Your task to perform on an android device: change notification settings in the gmail app Image 0: 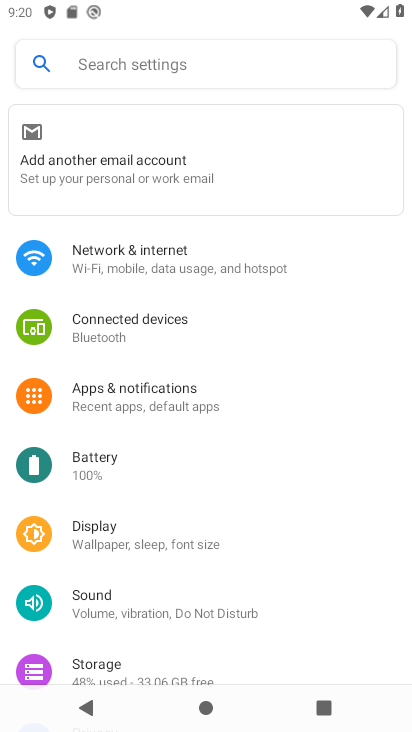
Step 0: press home button
Your task to perform on an android device: change notification settings in the gmail app Image 1: 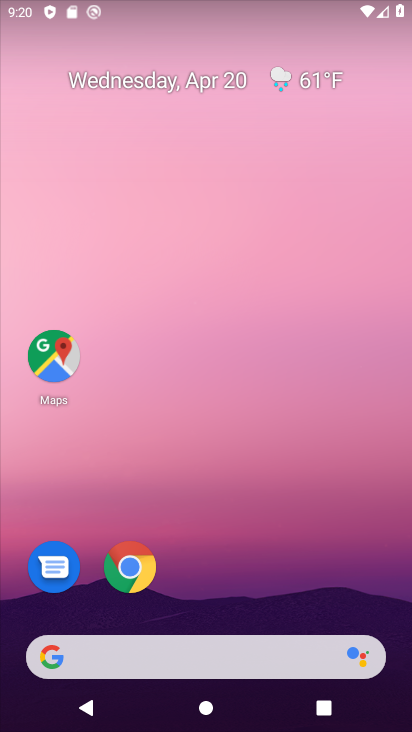
Step 1: drag from (211, 597) to (219, 159)
Your task to perform on an android device: change notification settings in the gmail app Image 2: 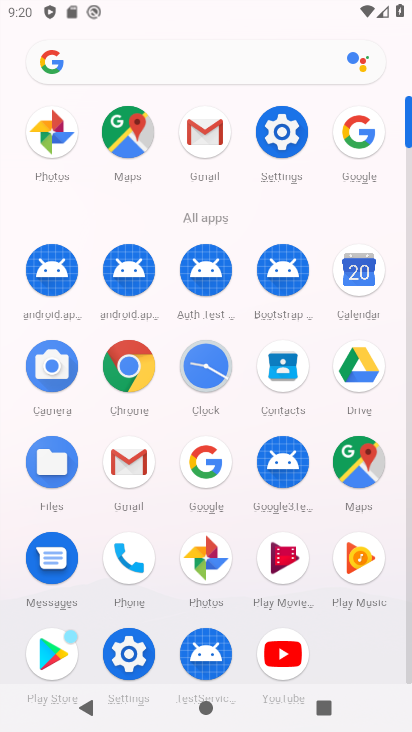
Step 2: click (207, 123)
Your task to perform on an android device: change notification settings in the gmail app Image 3: 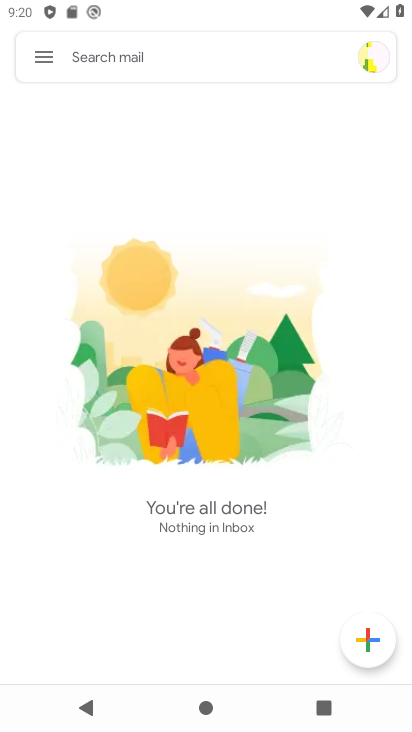
Step 3: click (45, 47)
Your task to perform on an android device: change notification settings in the gmail app Image 4: 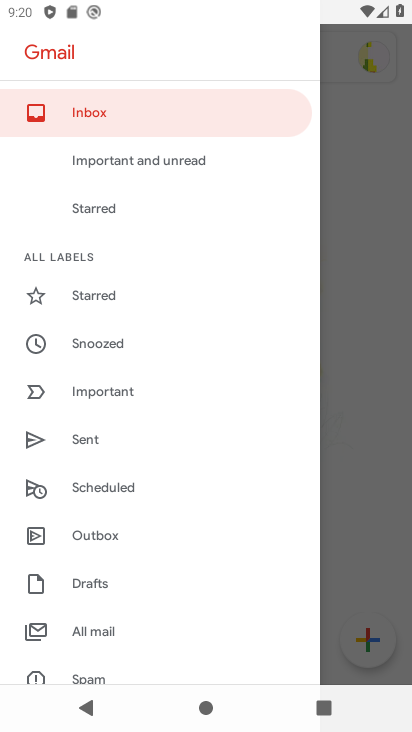
Step 4: drag from (118, 615) to (156, 365)
Your task to perform on an android device: change notification settings in the gmail app Image 5: 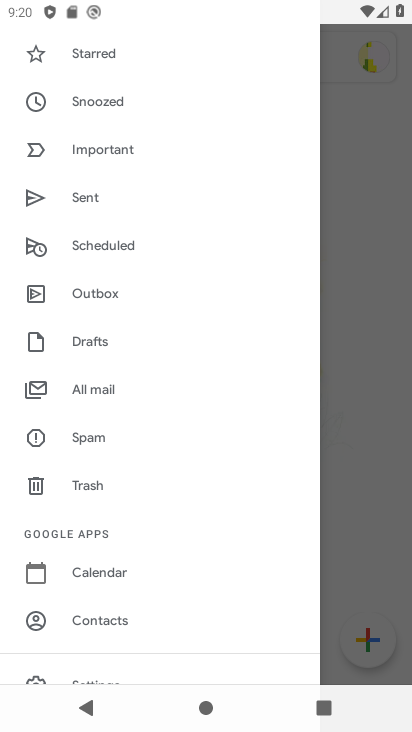
Step 5: drag from (128, 629) to (128, 416)
Your task to perform on an android device: change notification settings in the gmail app Image 6: 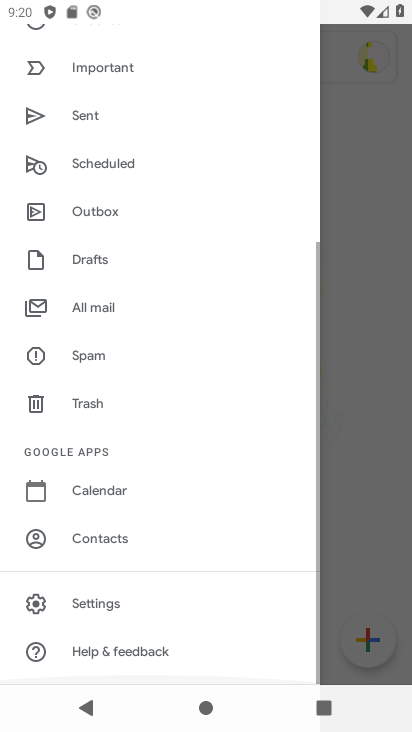
Step 6: click (123, 611)
Your task to perform on an android device: change notification settings in the gmail app Image 7: 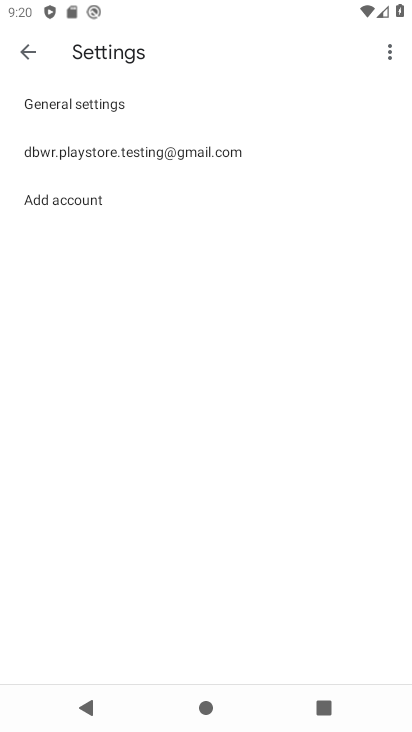
Step 7: click (155, 155)
Your task to perform on an android device: change notification settings in the gmail app Image 8: 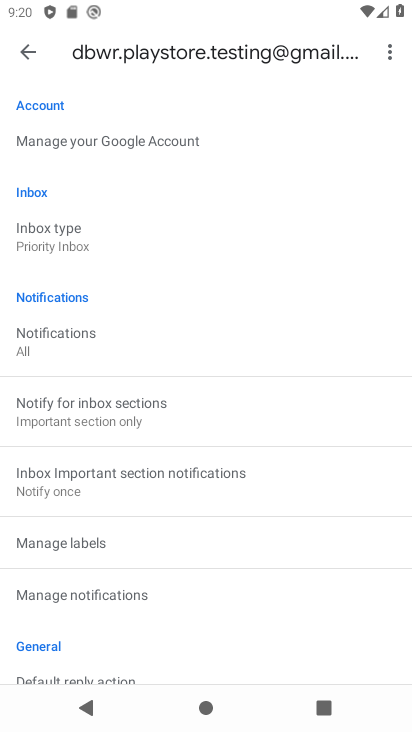
Step 8: click (164, 588)
Your task to perform on an android device: change notification settings in the gmail app Image 9: 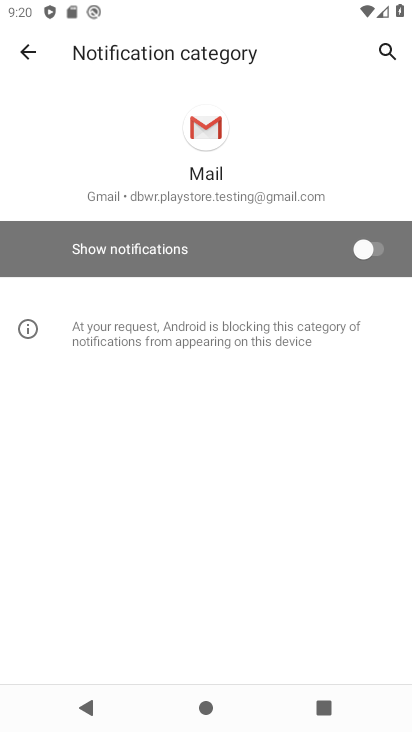
Step 9: click (366, 245)
Your task to perform on an android device: change notification settings in the gmail app Image 10: 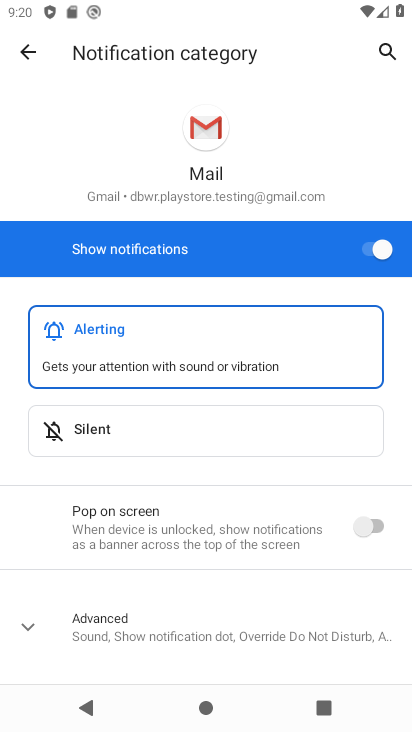
Step 10: task complete